Your task to perform on an android device: allow notifications from all sites in the chrome app Image 0: 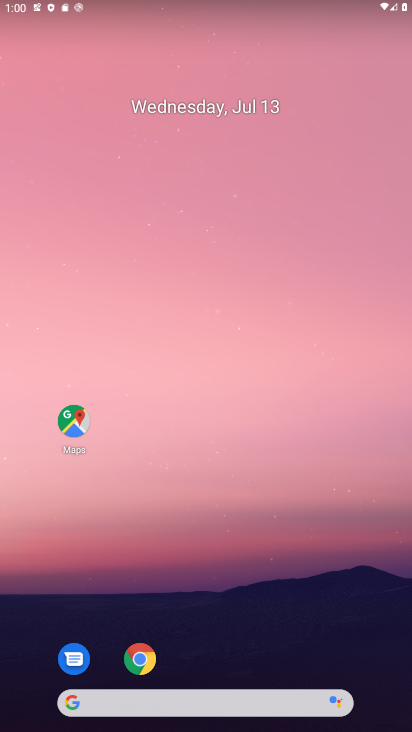
Step 0: drag from (258, 642) to (248, 124)
Your task to perform on an android device: allow notifications from all sites in the chrome app Image 1: 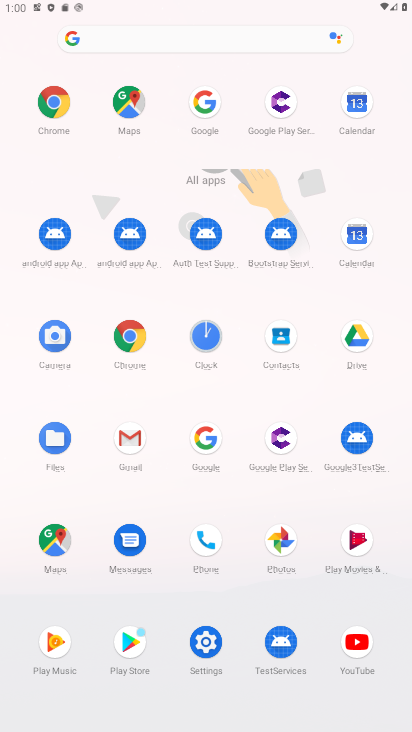
Step 1: click (54, 101)
Your task to perform on an android device: allow notifications from all sites in the chrome app Image 2: 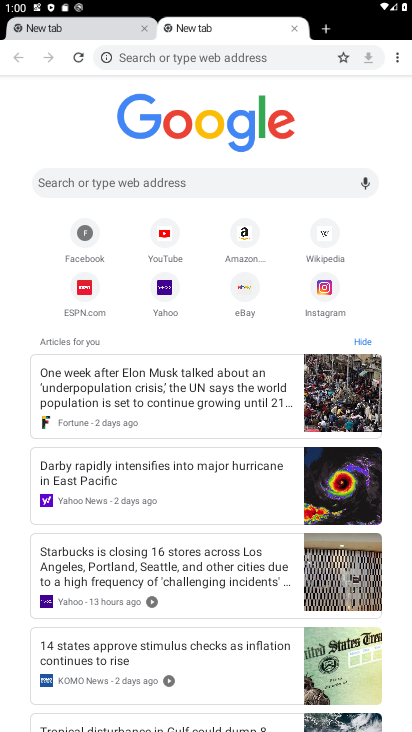
Step 2: click (395, 60)
Your task to perform on an android device: allow notifications from all sites in the chrome app Image 3: 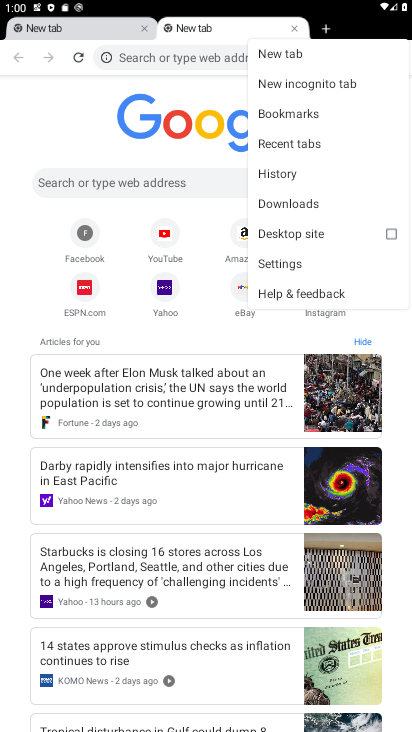
Step 3: click (291, 262)
Your task to perform on an android device: allow notifications from all sites in the chrome app Image 4: 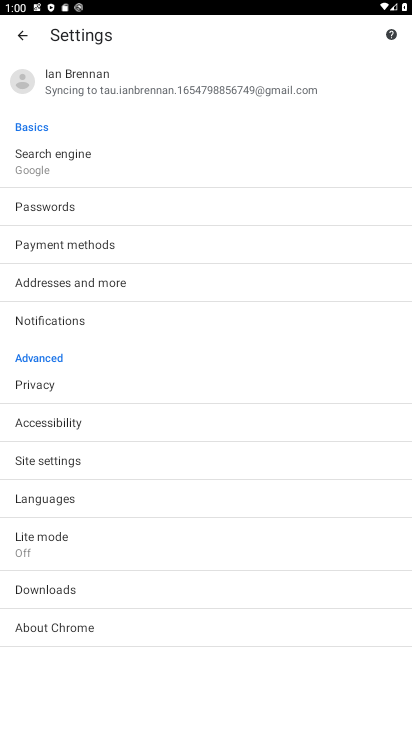
Step 4: click (66, 468)
Your task to perform on an android device: allow notifications from all sites in the chrome app Image 5: 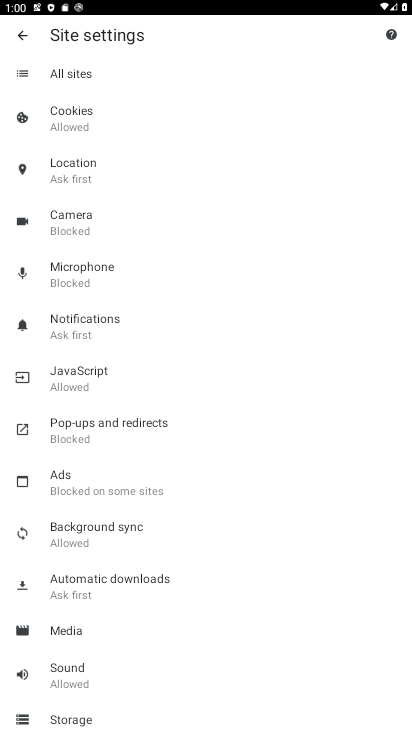
Step 5: click (113, 320)
Your task to perform on an android device: allow notifications from all sites in the chrome app Image 6: 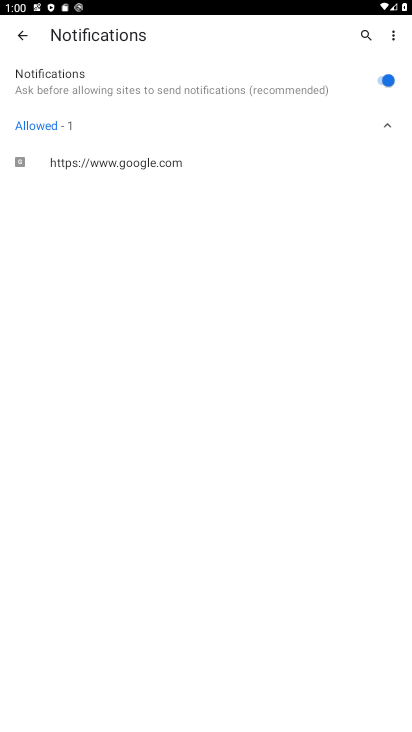
Step 6: task complete